Your task to perform on an android device: Open internet settings Image 0: 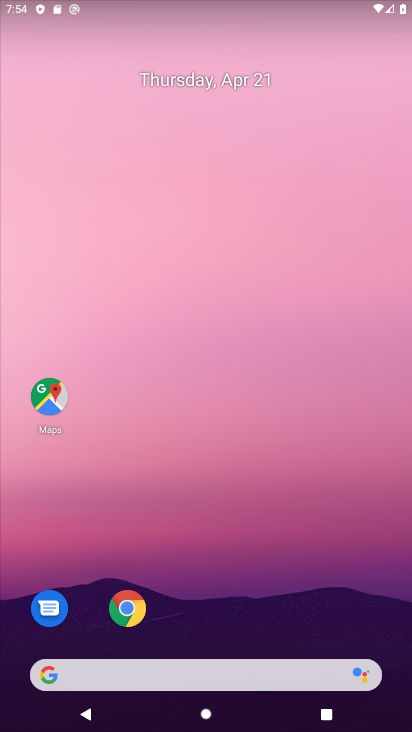
Step 0: click (310, 400)
Your task to perform on an android device: Open internet settings Image 1: 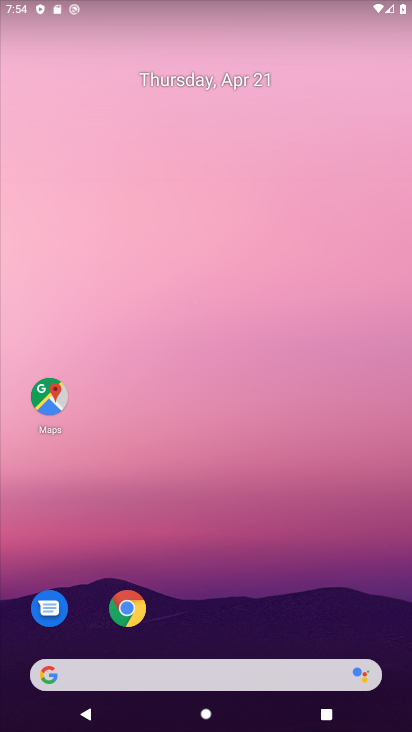
Step 1: drag from (197, 628) to (231, 245)
Your task to perform on an android device: Open internet settings Image 2: 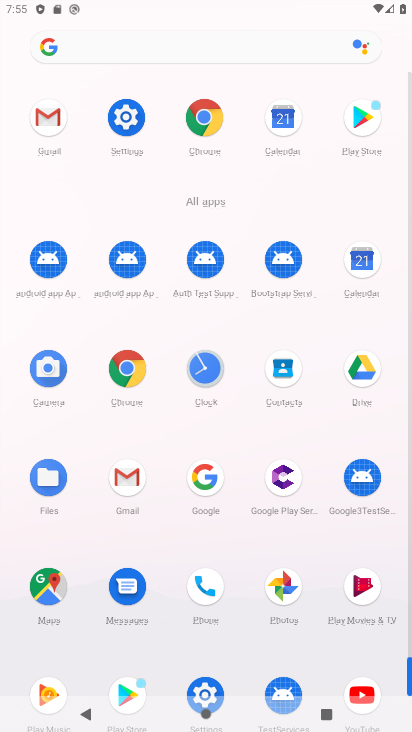
Step 2: click (118, 121)
Your task to perform on an android device: Open internet settings Image 3: 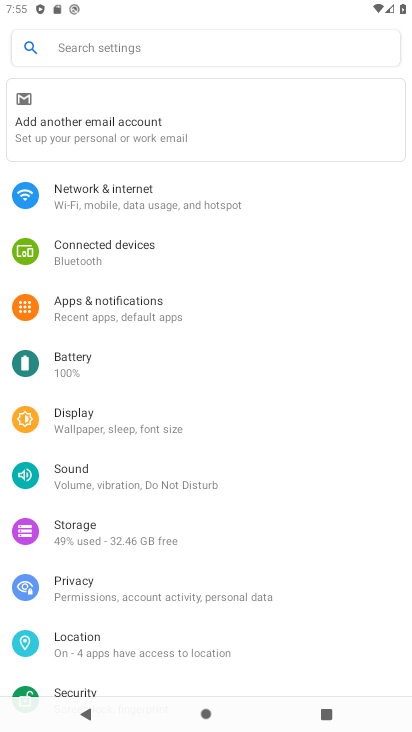
Step 3: click (128, 207)
Your task to perform on an android device: Open internet settings Image 4: 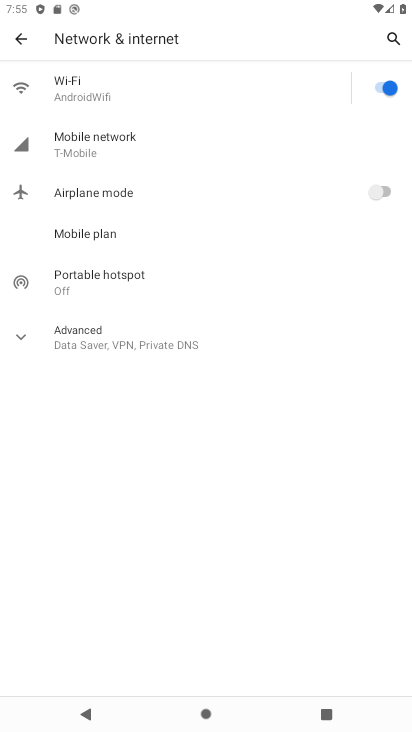
Step 4: task complete